Your task to perform on an android device: add a contact Image 0: 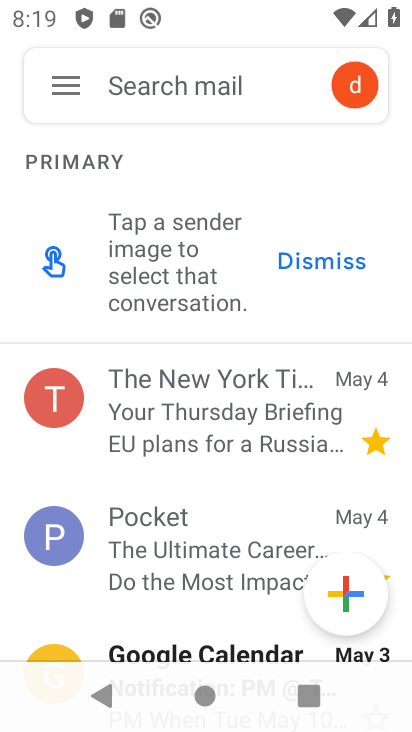
Step 0: press home button
Your task to perform on an android device: add a contact Image 1: 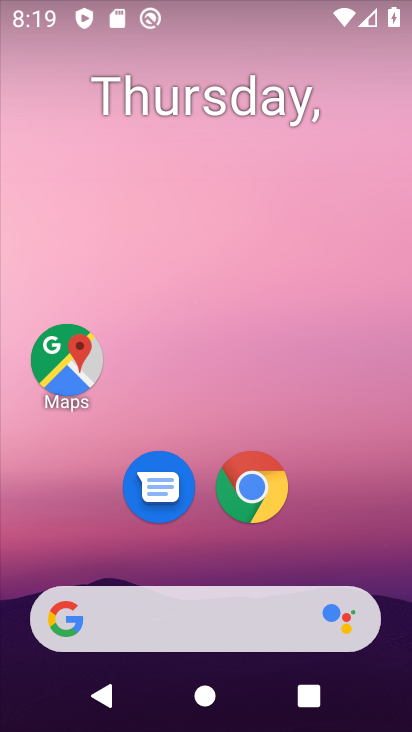
Step 1: drag from (215, 671) to (319, 120)
Your task to perform on an android device: add a contact Image 2: 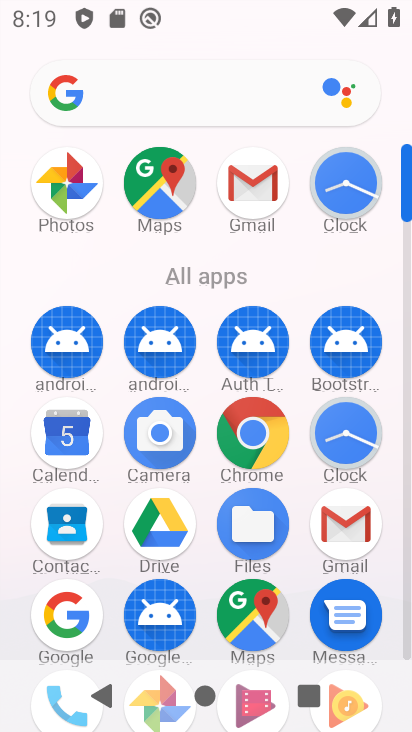
Step 2: drag from (121, 572) to (182, 364)
Your task to perform on an android device: add a contact Image 3: 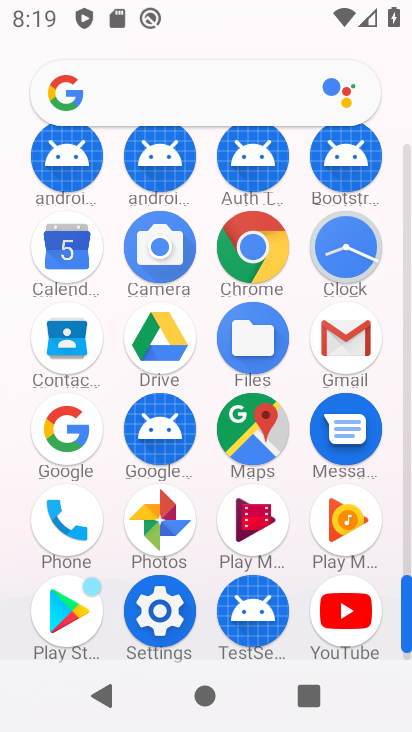
Step 3: click (71, 520)
Your task to perform on an android device: add a contact Image 4: 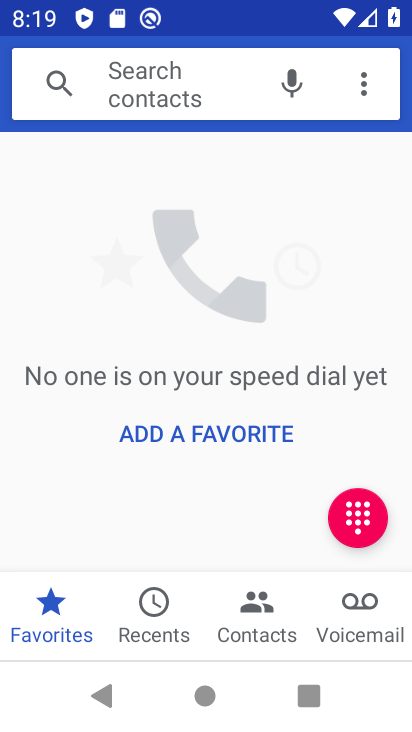
Step 4: click (238, 624)
Your task to perform on an android device: add a contact Image 5: 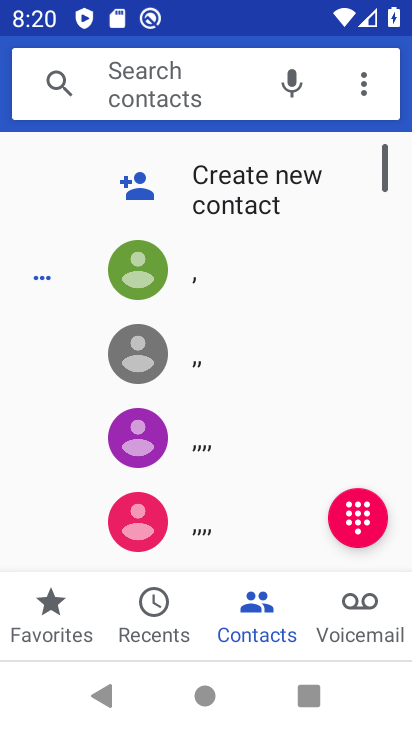
Step 5: click (262, 195)
Your task to perform on an android device: add a contact Image 6: 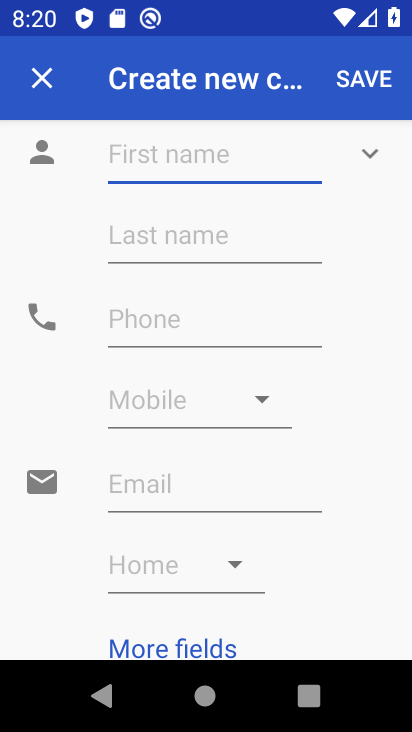
Step 6: click (161, 163)
Your task to perform on an android device: add a contact Image 7: 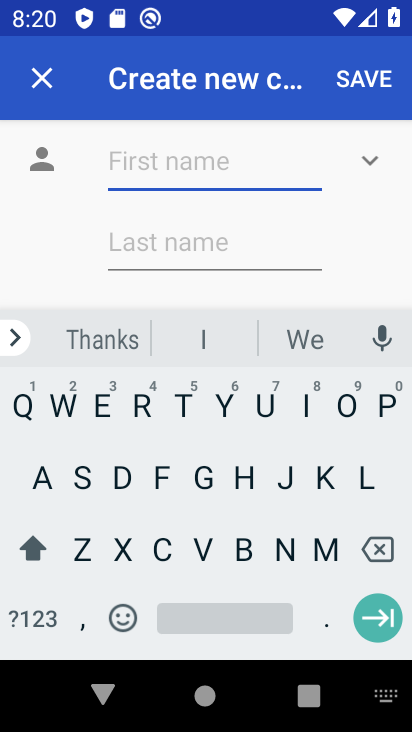
Step 7: click (135, 410)
Your task to perform on an android device: add a contact Image 8: 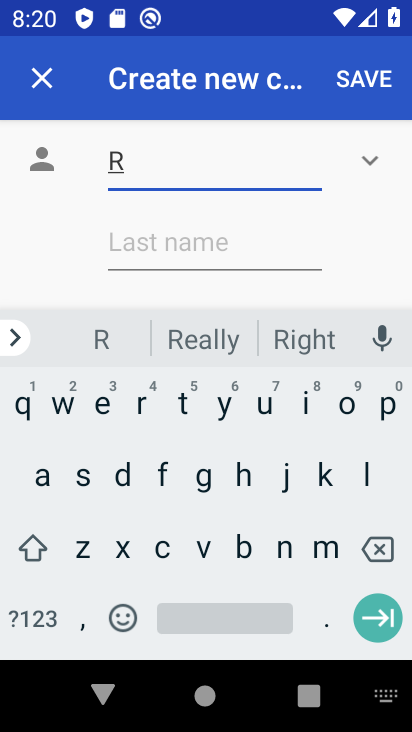
Step 8: click (124, 486)
Your task to perform on an android device: add a contact Image 9: 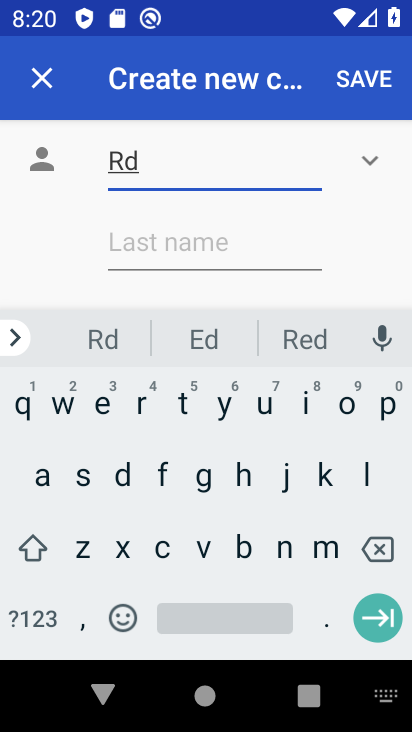
Step 9: click (119, 544)
Your task to perform on an android device: add a contact Image 10: 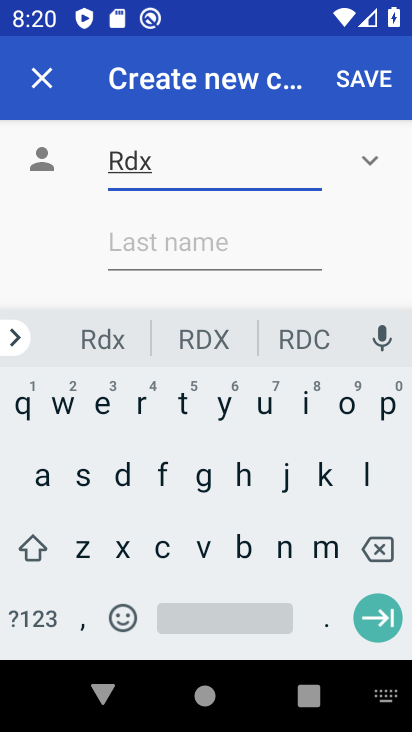
Step 10: click (208, 295)
Your task to perform on an android device: add a contact Image 11: 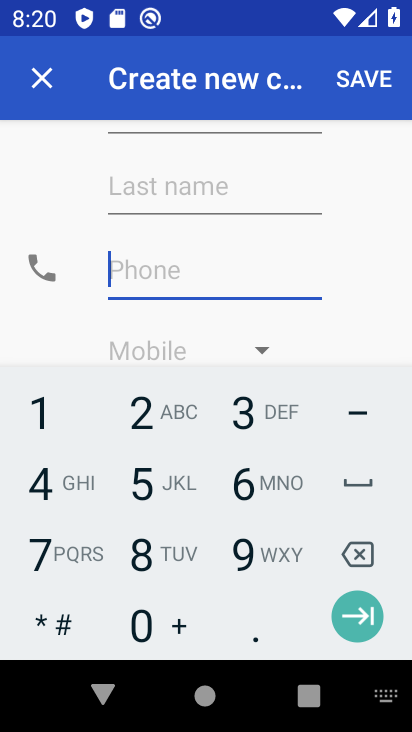
Step 11: click (244, 495)
Your task to perform on an android device: add a contact Image 12: 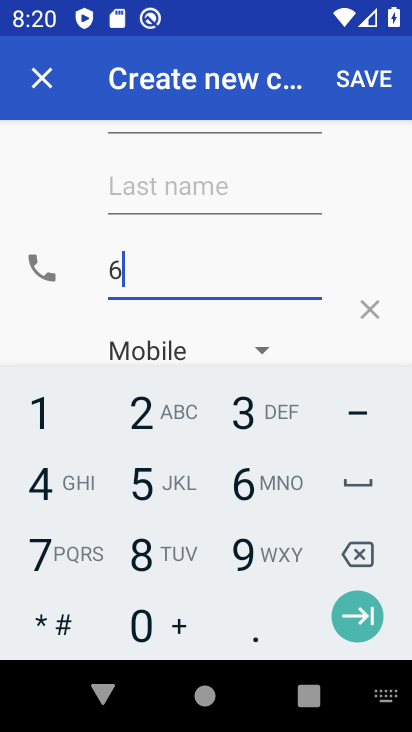
Step 12: click (194, 489)
Your task to perform on an android device: add a contact Image 13: 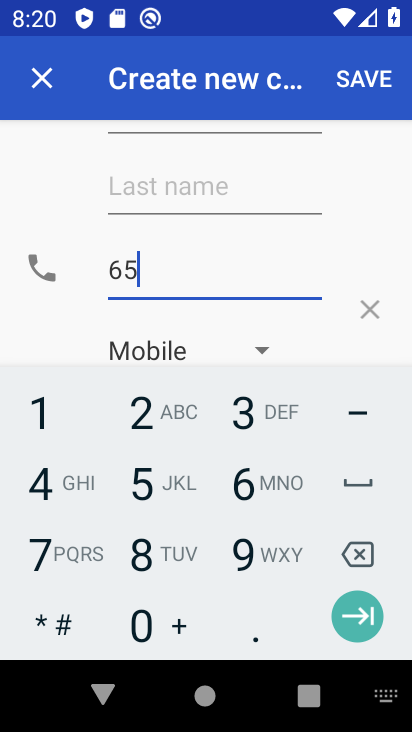
Step 13: click (183, 409)
Your task to perform on an android device: add a contact Image 14: 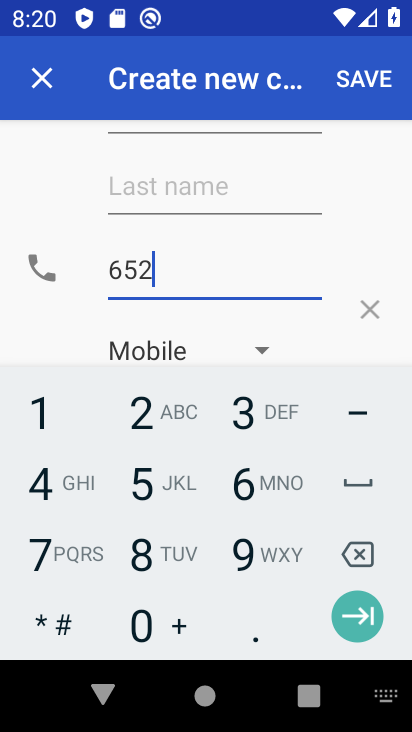
Step 14: click (240, 421)
Your task to perform on an android device: add a contact Image 15: 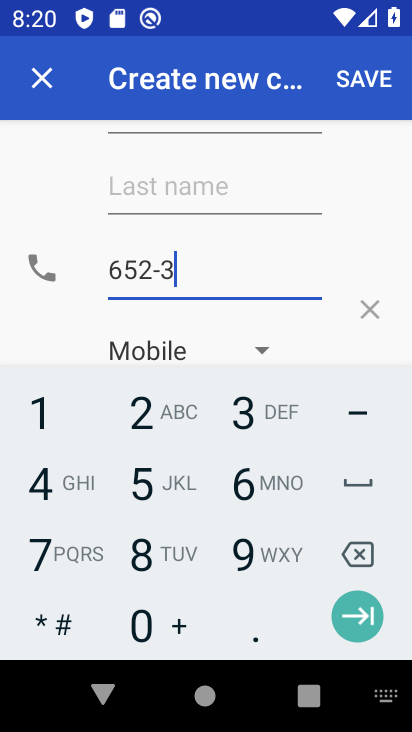
Step 15: click (147, 474)
Your task to perform on an android device: add a contact Image 16: 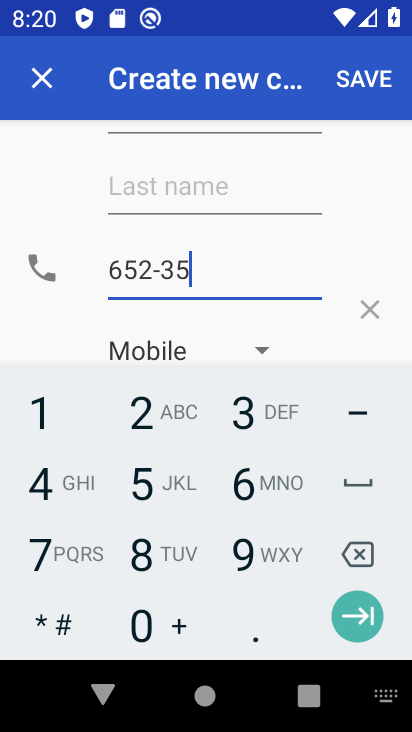
Step 16: click (42, 433)
Your task to perform on an android device: add a contact Image 17: 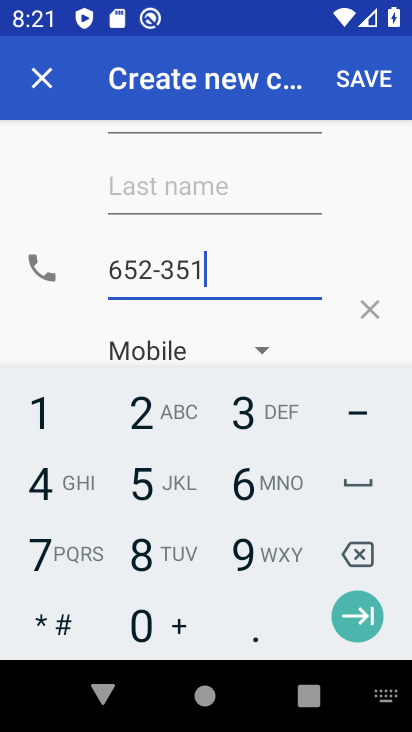
Step 17: click (142, 495)
Your task to perform on an android device: add a contact Image 18: 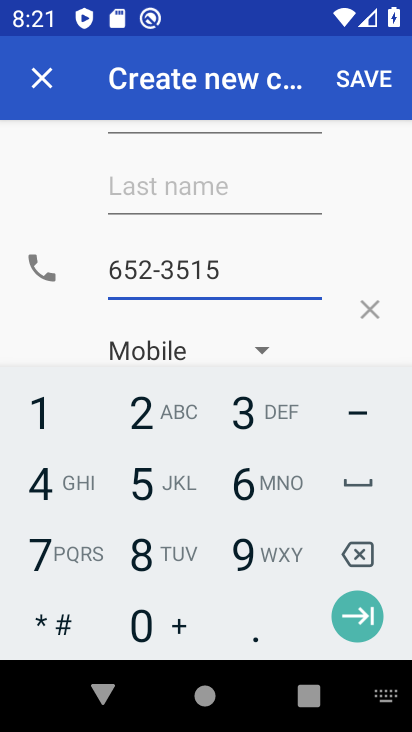
Step 18: click (160, 501)
Your task to perform on an android device: add a contact Image 19: 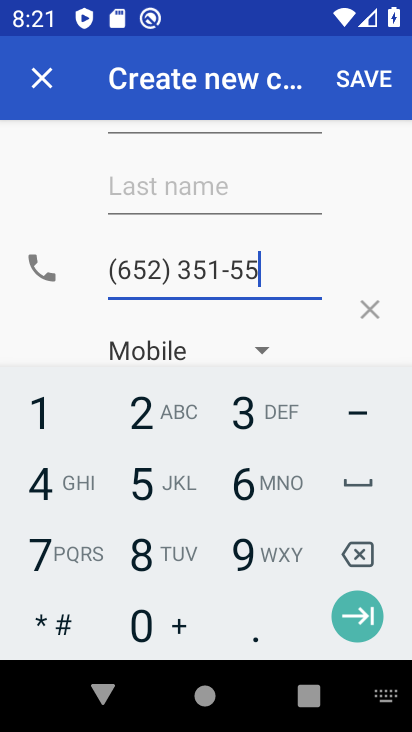
Step 19: click (257, 482)
Your task to perform on an android device: add a contact Image 20: 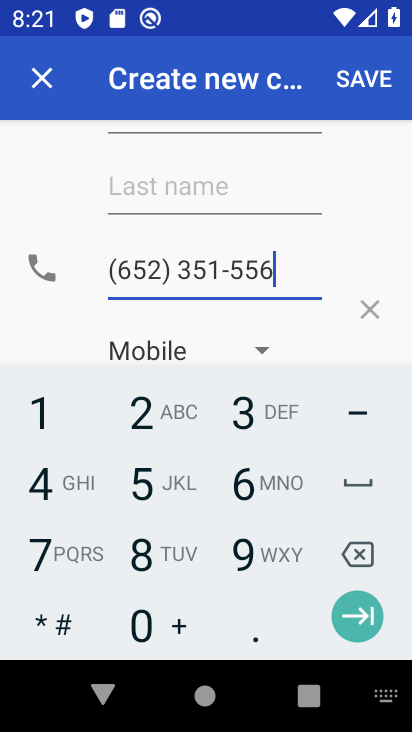
Step 20: click (147, 542)
Your task to perform on an android device: add a contact Image 21: 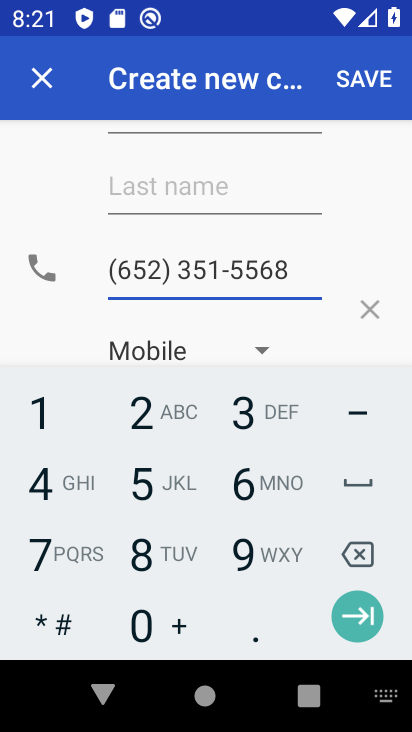
Step 21: click (351, 69)
Your task to perform on an android device: add a contact Image 22: 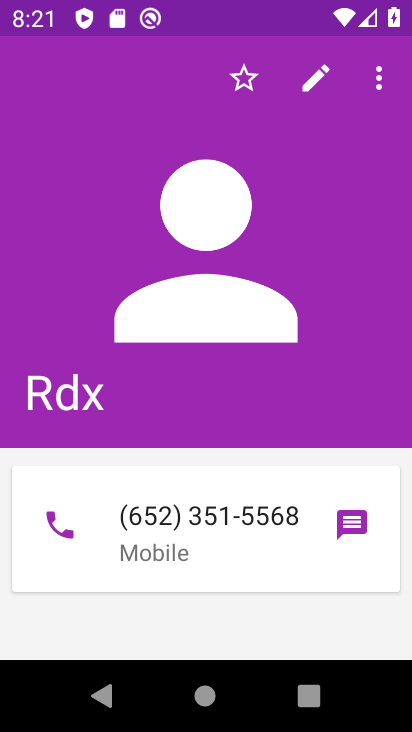
Step 22: task complete